Your task to perform on an android device: toggle improve location accuracy Image 0: 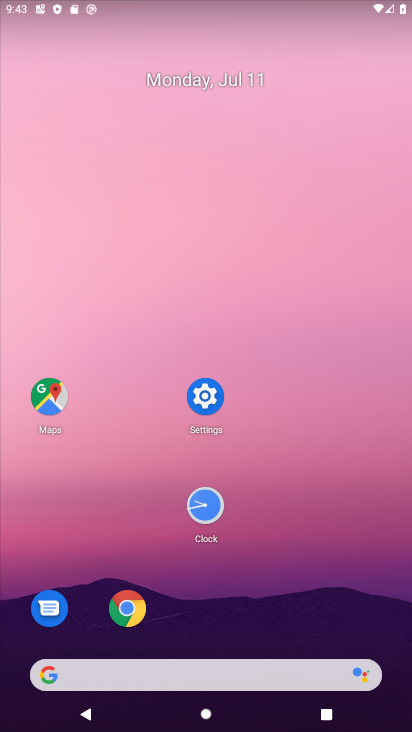
Step 0: press home button
Your task to perform on an android device: toggle improve location accuracy Image 1: 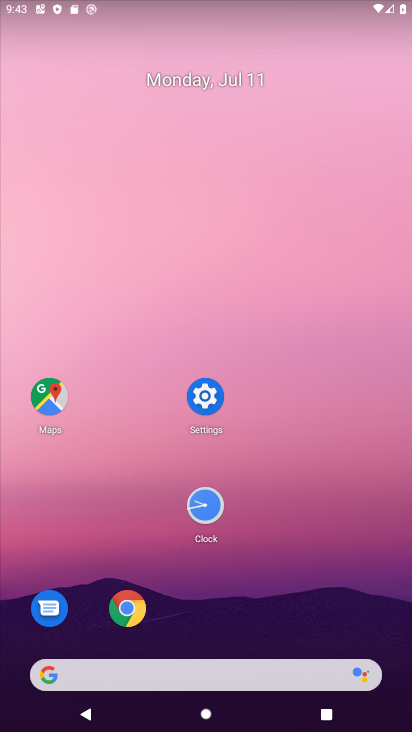
Step 1: click (207, 394)
Your task to perform on an android device: toggle improve location accuracy Image 2: 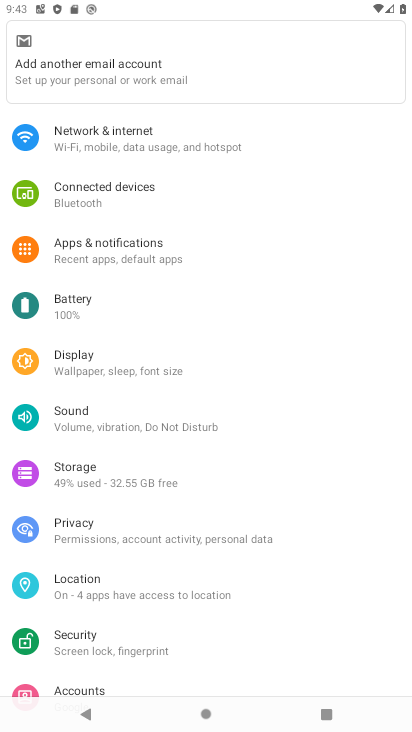
Step 2: click (74, 591)
Your task to perform on an android device: toggle improve location accuracy Image 3: 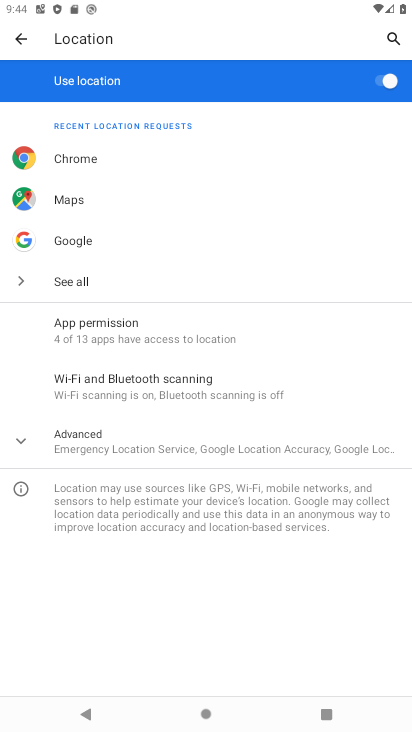
Step 3: click (23, 442)
Your task to perform on an android device: toggle improve location accuracy Image 4: 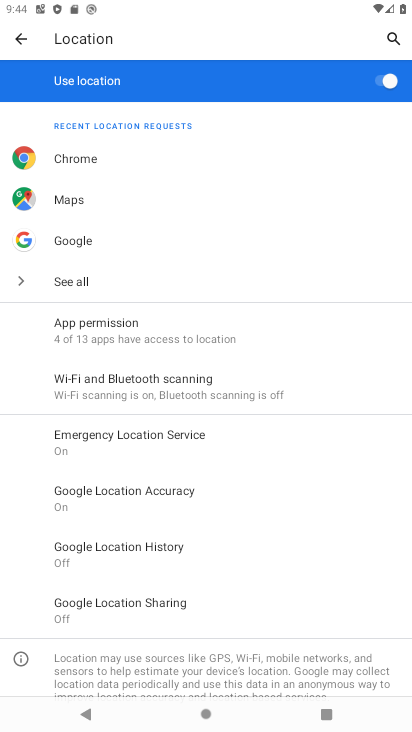
Step 4: click (115, 495)
Your task to perform on an android device: toggle improve location accuracy Image 5: 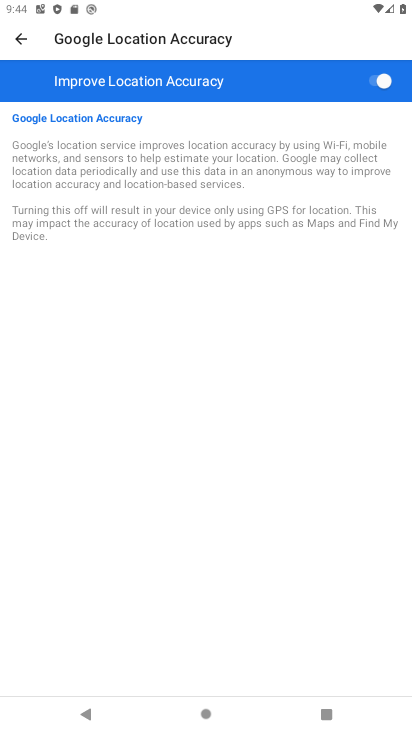
Step 5: click (373, 80)
Your task to perform on an android device: toggle improve location accuracy Image 6: 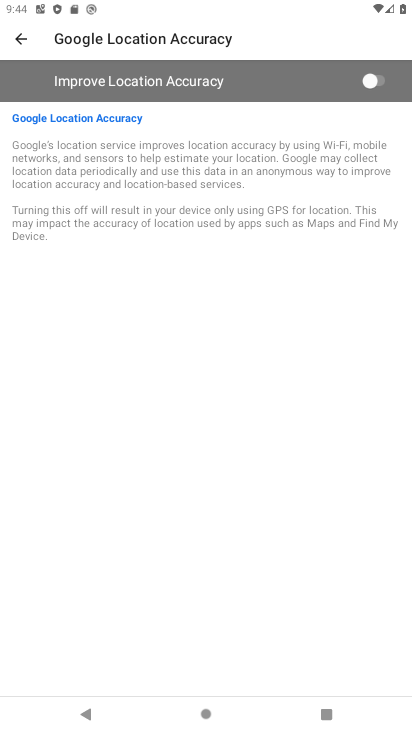
Step 6: task complete